Your task to perform on an android device: Turn on the flashlight Image 0: 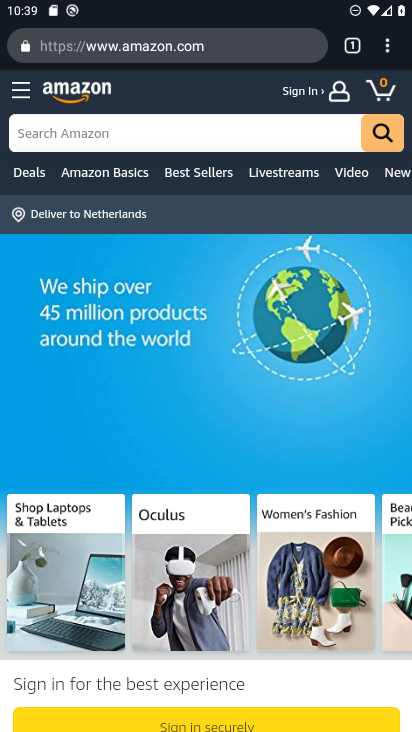
Step 0: press home button
Your task to perform on an android device: Turn on the flashlight Image 1: 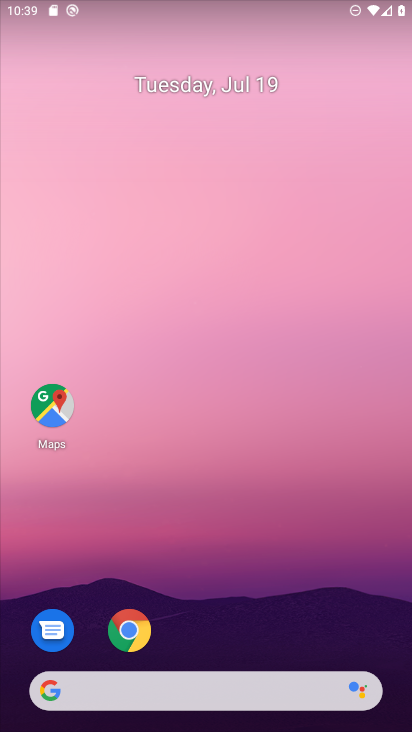
Step 1: drag from (191, 676) to (171, 190)
Your task to perform on an android device: Turn on the flashlight Image 2: 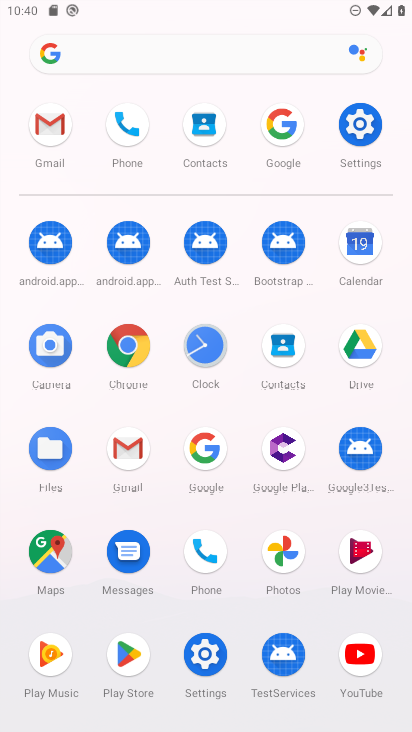
Step 2: click (358, 123)
Your task to perform on an android device: Turn on the flashlight Image 3: 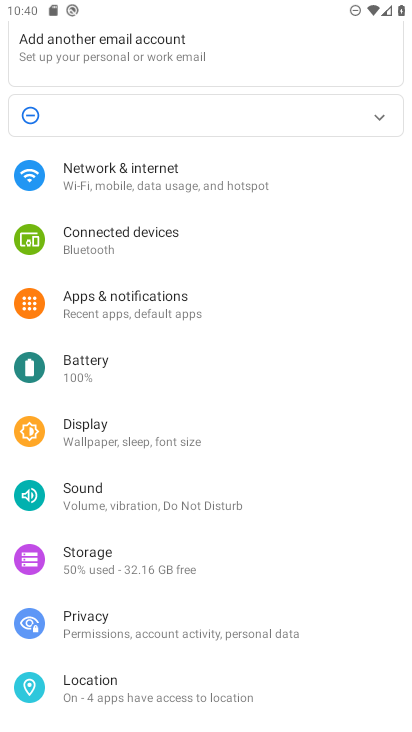
Step 3: drag from (127, 426) to (166, 343)
Your task to perform on an android device: Turn on the flashlight Image 4: 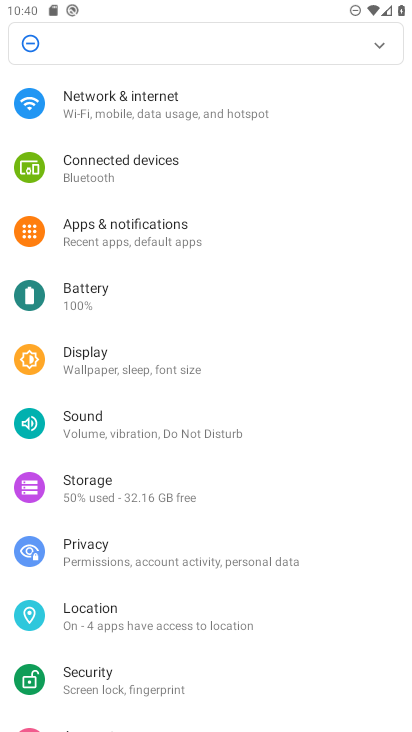
Step 4: click (154, 375)
Your task to perform on an android device: Turn on the flashlight Image 5: 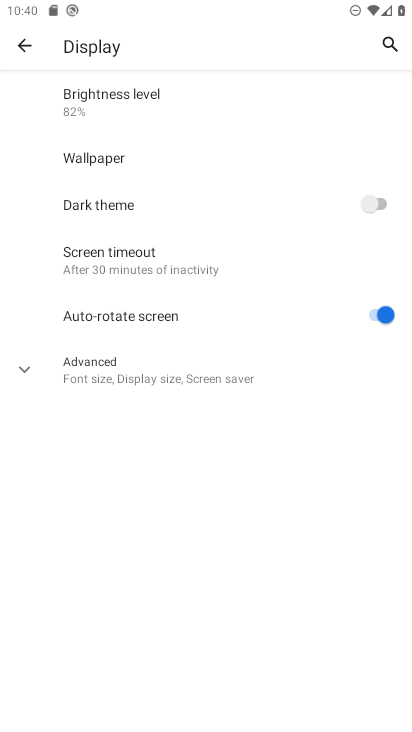
Step 5: click (24, 367)
Your task to perform on an android device: Turn on the flashlight Image 6: 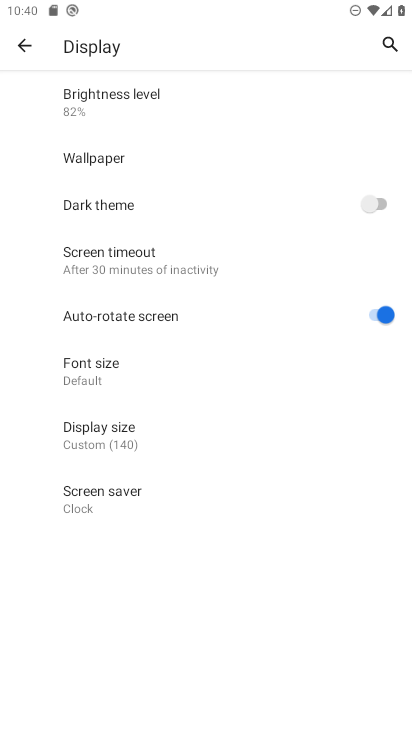
Step 6: task complete